Your task to perform on an android device: Open the calendar and show me this week's events? Image 0: 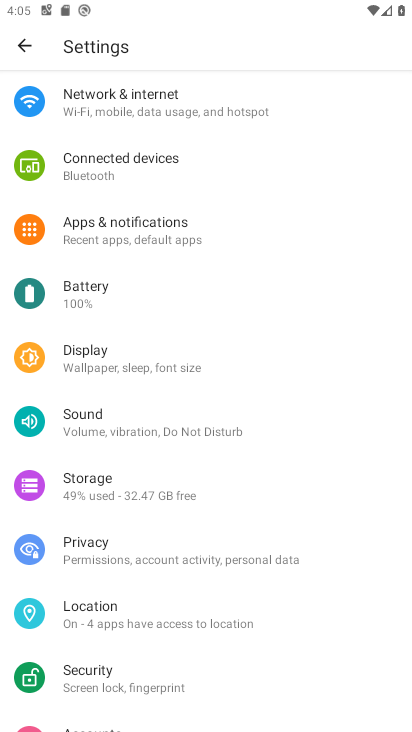
Step 0: press home button
Your task to perform on an android device: Open the calendar and show me this week's events? Image 1: 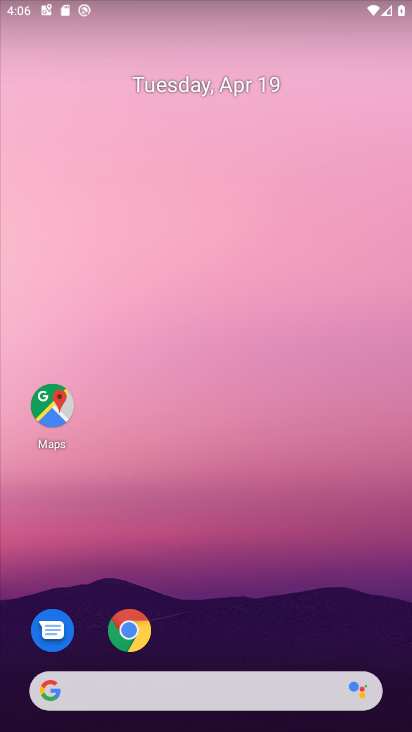
Step 1: drag from (191, 379) to (186, 130)
Your task to perform on an android device: Open the calendar and show me this week's events? Image 2: 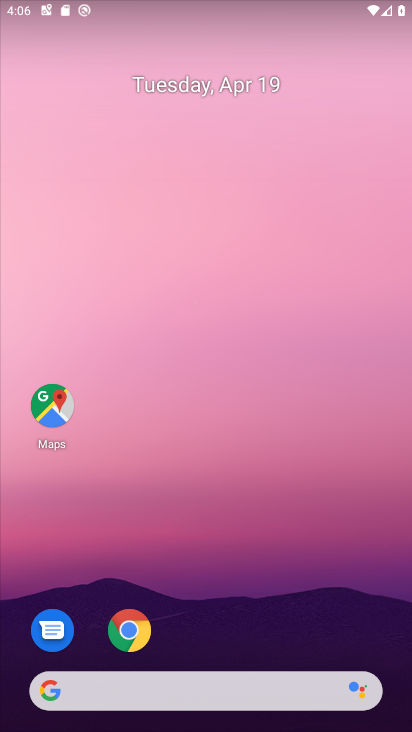
Step 2: drag from (242, 567) to (252, 195)
Your task to perform on an android device: Open the calendar and show me this week's events? Image 3: 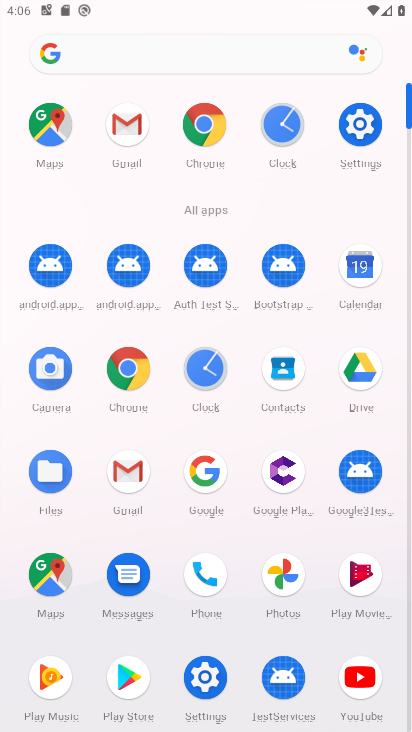
Step 3: click (368, 280)
Your task to perform on an android device: Open the calendar and show me this week's events? Image 4: 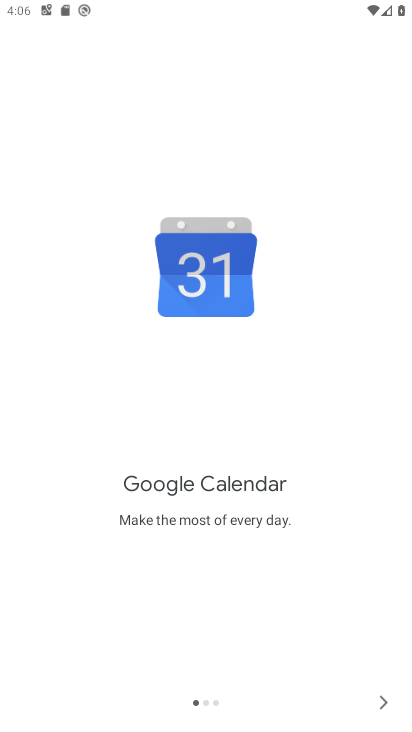
Step 4: click (360, 693)
Your task to perform on an android device: Open the calendar and show me this week's events? Image 5: 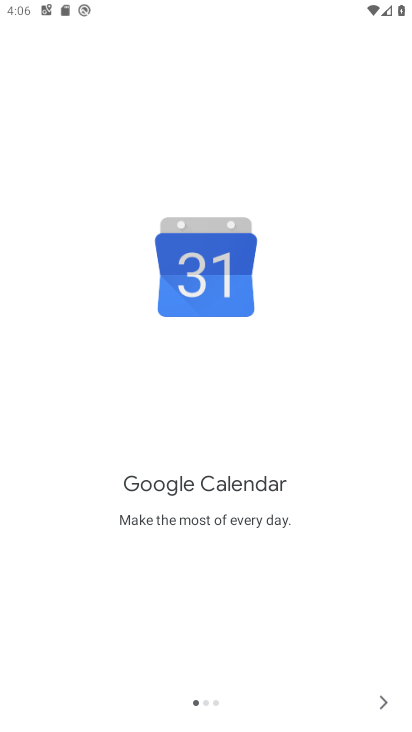
Step 5: click (381, 697)
Your task to perform on an android device: Open the calendar and show me this week's events? Image 6: 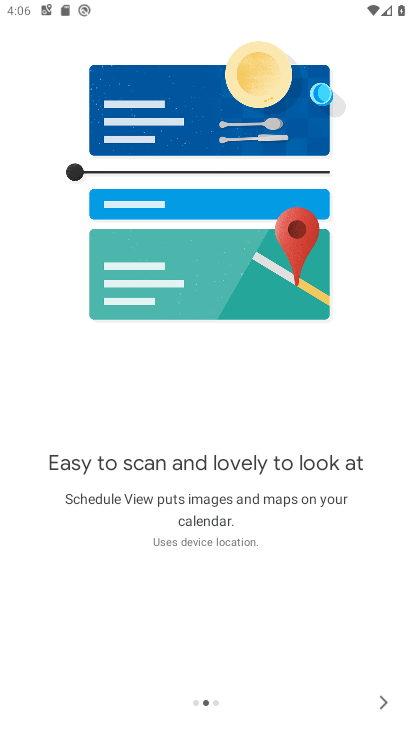
Step 6: click (381, 706)
Your task to perform on an android device: Open the calendar and show me this week's events? Image 7: 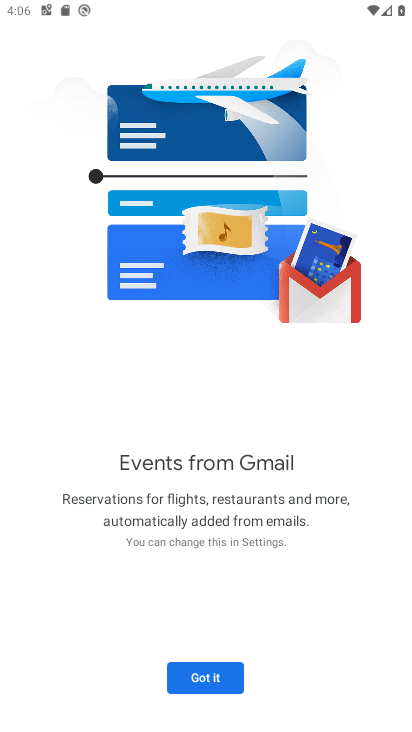
Step 7: click (234, 684)
Your task to perform on an android device: Open the calendar and show me this week's events? Image 8: 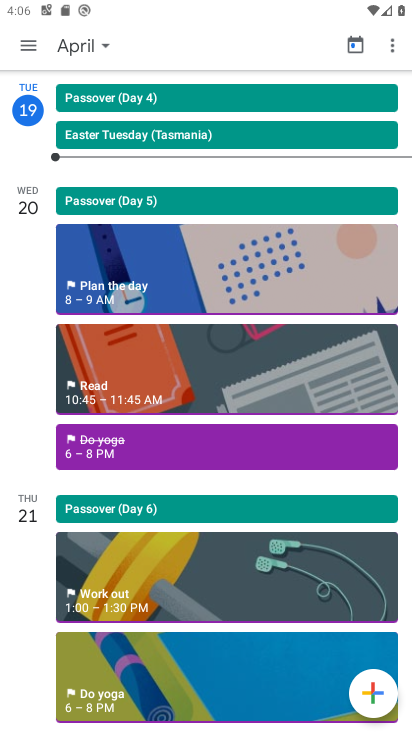
Step 8: click (75, 56)
Your task to perform on an android device: Open the calendar and show me this week's events? Image 9: 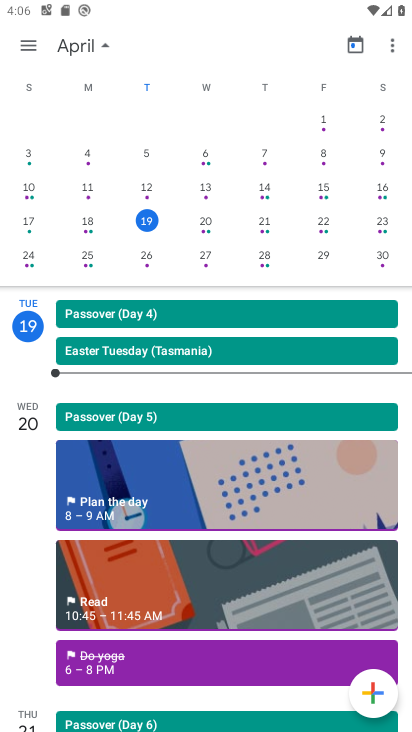
Step 9: click (193, 225)
Your task to perform on an android device: Open the calendar and show me this week's events? Image 10: 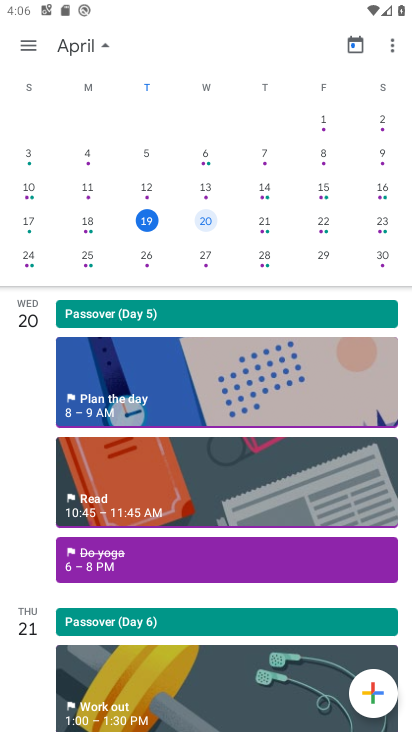
Step 10: click (262, 233)
Your task to perform on an android device: Open the calendar and show me this week's events? Image 11: 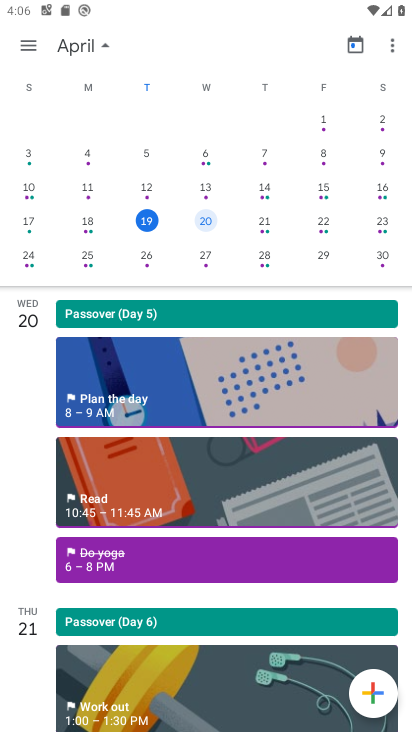
Step 11: click (273, 223)
Your task to perform on an android device: Open the calendar and show me this week's events? Image 12: 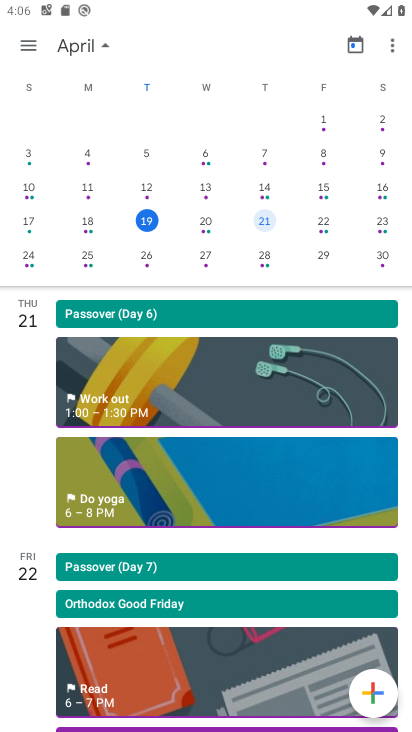
Step 12: click (332, 225)
Your task to perform on an android device: Open the calendar and show me this week's events? Image 13: 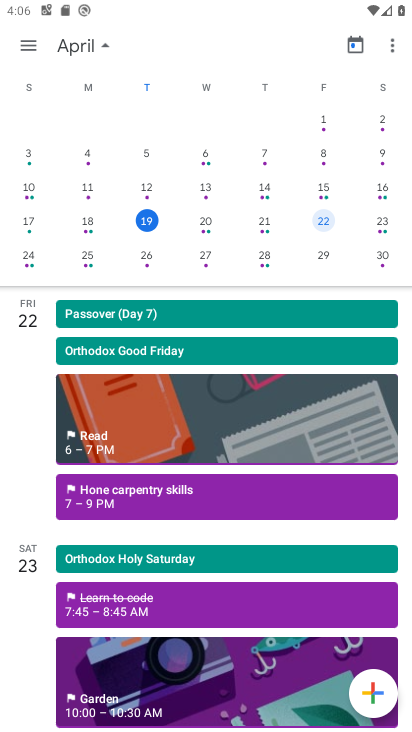
Step 13: click (388, 226)
Your task to perform on an android device: Open the calendar and show me this week's events? Image 14: 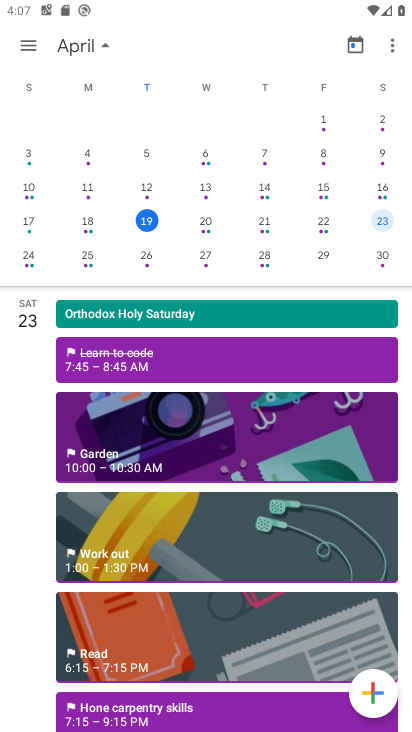
Step 14: task complete